Your task to perform on an android device: turn on showing notifications on the lock screen Image 0: 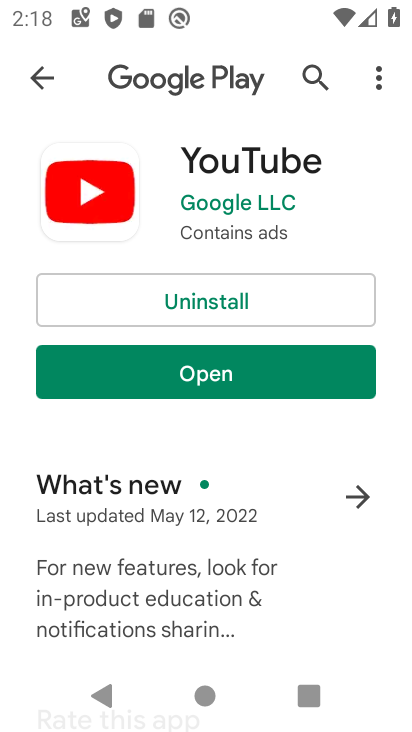
Step 0: press home button
Your task to perform on an android device: turn on showing notifications on the lock screen Image 1: 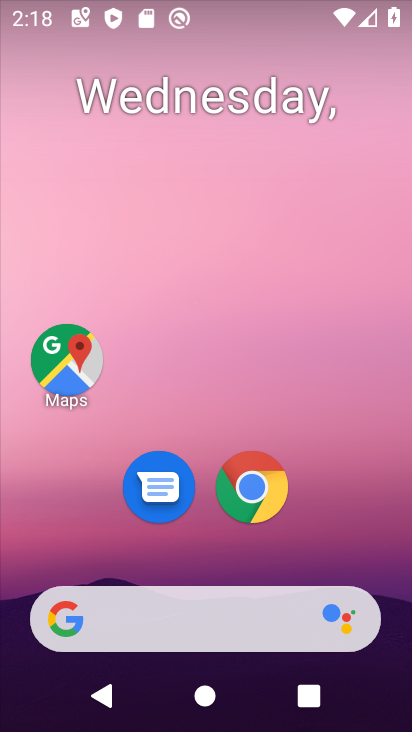
Step 1: drag from (330, 478) to (149, 22)
Your task to perform on an android device: turn on showing notifications on the lock screen Image 2: 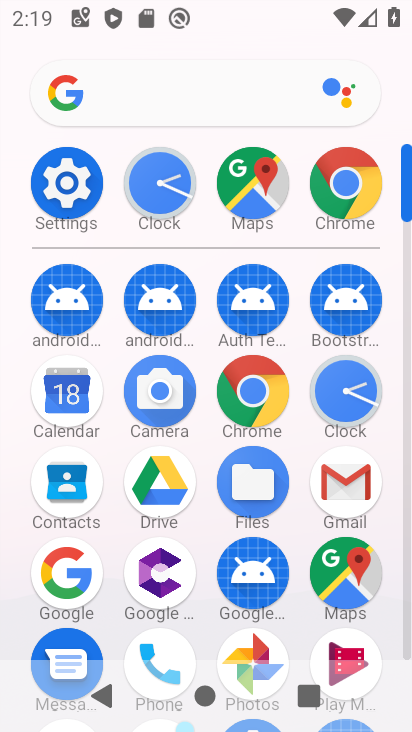
Step 2: click (56, 184)
Your task to perform on an android device: turn on showing notifications on the lock screen Image 3: 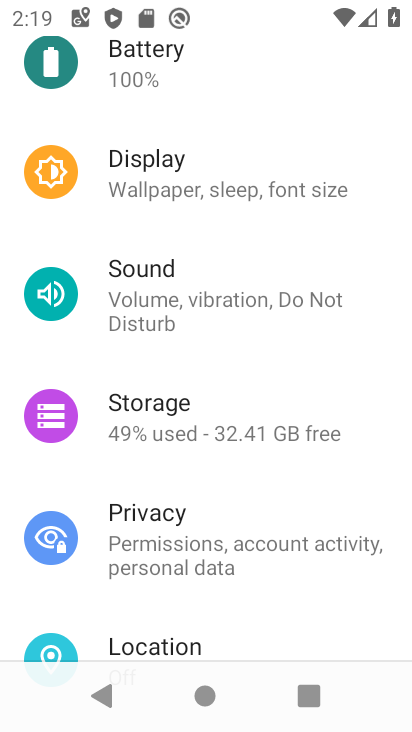
Step 3: drag from (205, 245) to (246, 655)
Your task to perform on an android device: turn on showing notifications on the lock screen Image 4: 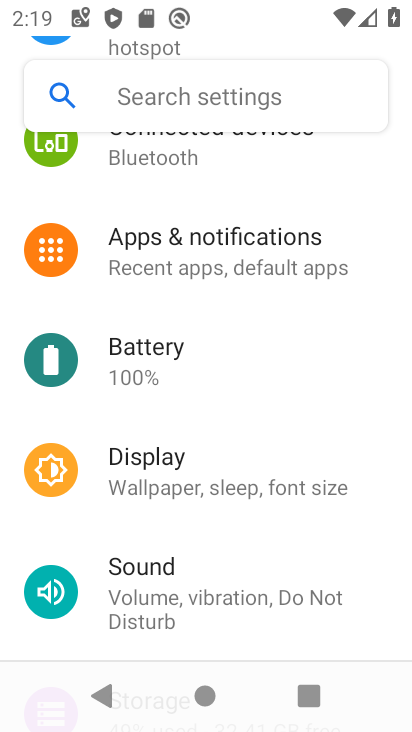
Step 4: click (203, 245)
Your task to perform on an android device: turn on showing notifications on the lock screen Image 5: 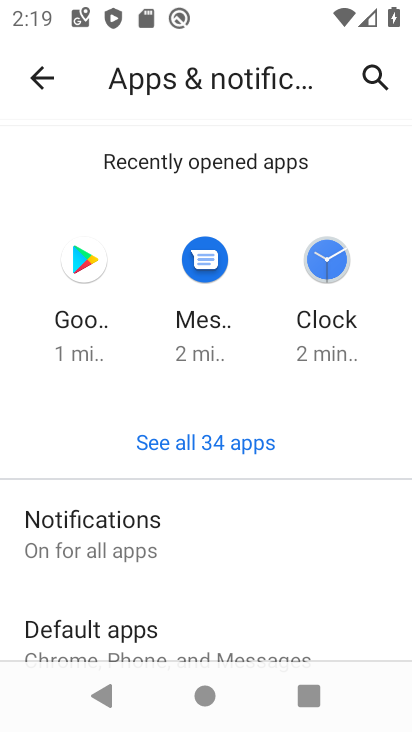
Step 5: drag from (250, 512) to (176, 228)
Your task to perform on an android device: turn on showing notifications on the lock screen Image 6: 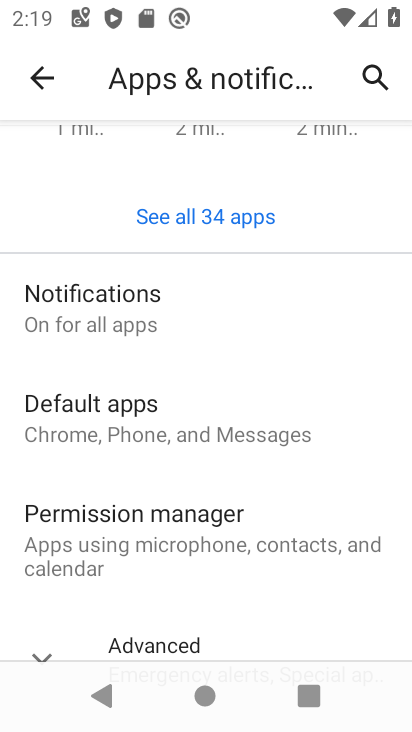
Step 6: click (94, 295)
Your task to perform on an android device: turn on showing notifications on the lock screen Image 7: 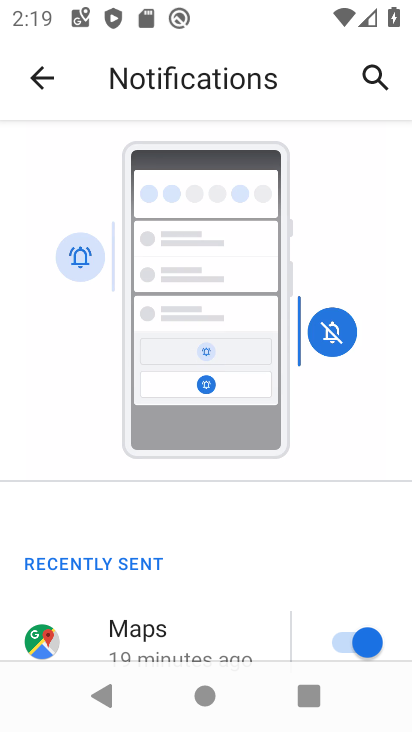
Step 7: drag from (248, 535) to (104, 103)
Your task to perform on an android device: turn on showing notifications on the lock screen Image 8: 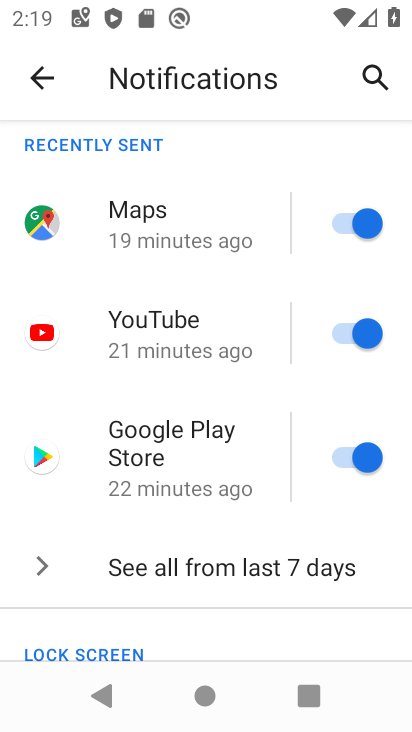
Step 8: drag from (235, 593) to (148, 250)
Your task to perform on an android device: turn on showing notifications on the lock screen Image 9: 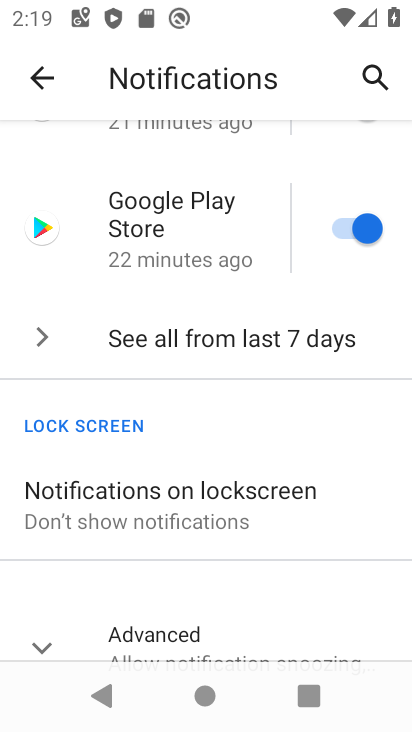
Step 9: click (198, 491)
Your task to perform on an android device: turn on showing notifications on the lock screen Image 10: 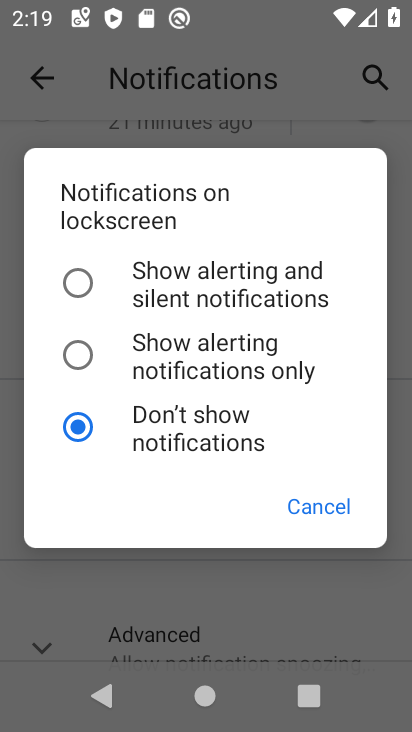
Step 10: click (77, 280)
Your task to perform on an android device: turn on showing notifications on the lock screen Image 11: 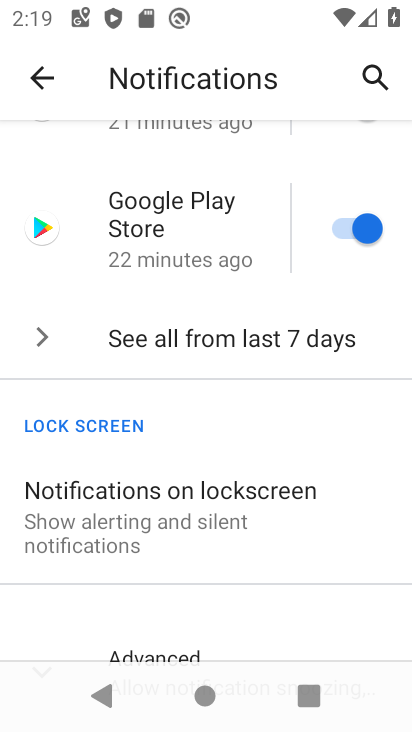
Step 11: task complete